Your task to perform on an android device: What's US dollar exchange rate against the Chinese Yuan? Image 0: 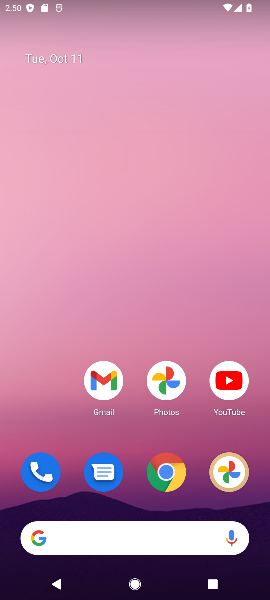
Step 0: click (179, 464)
Your task to perform on an android device: What's US dollar exchange rate against the Chinese Yuan? Image 1: 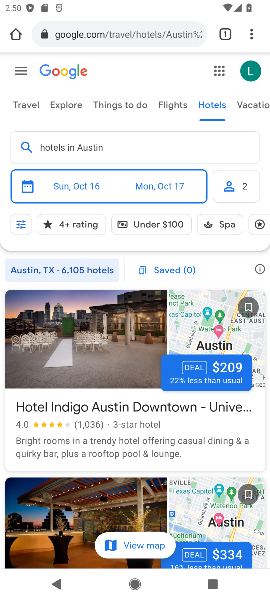
Step 1: click (101, 30)
Your task to perform on an android device: What's US dollar exchange rate against the Chinese Yuan? Image 2: 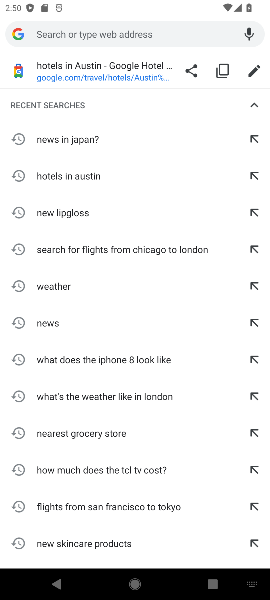
Step 2: type "What's US dollar exchange rate against the Chinese Yuan?"
Your task to perform on an android device: What's US dollar exchange rate against the Chinese Yuan? Image 3: 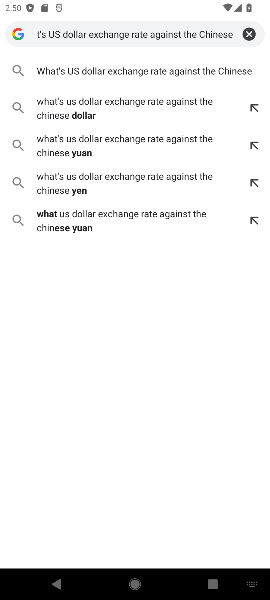
Step 3: type ""
Your task to perform on an android device: What's US dollar exchange rate against the Chinese Yuan? Image 4: 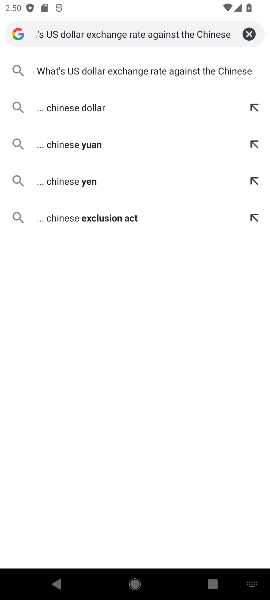
Step 4: click (165, 74)
Your task to perform on an android device: What's US dollar exchange rate against the Chinese Yuan? Image 5: 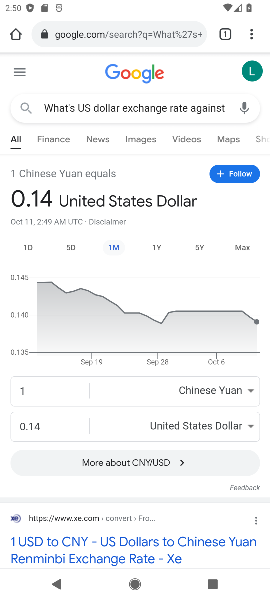
Step 5: task complete